Your task to perform on an android device: Open Google Chrome Image 0: 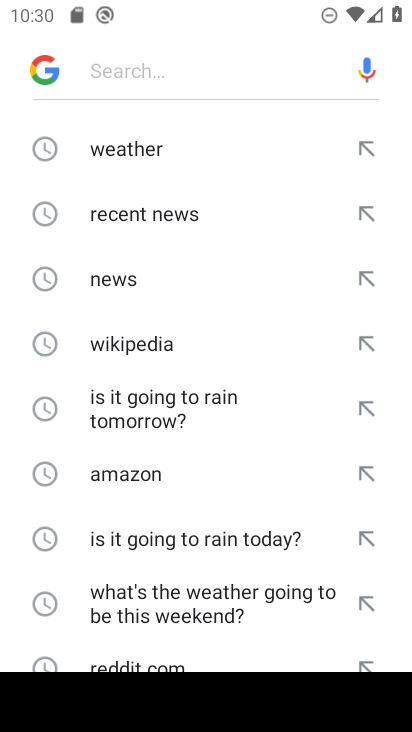
Step 0: press home button
Your task to perform on an android device: Open Google Chrome Image 1: 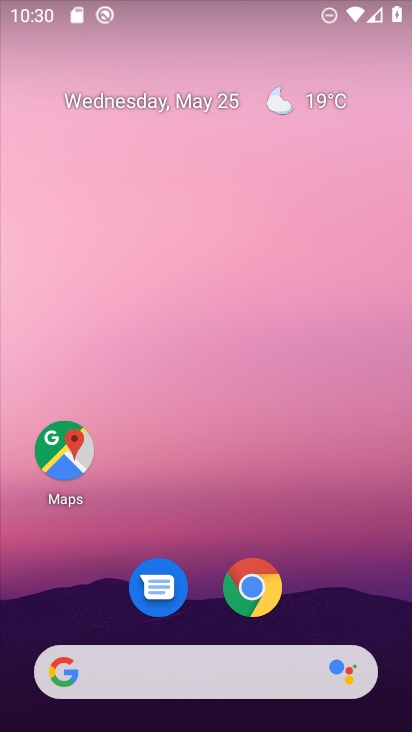
Step 1: click (255, 584)
Your task to perform on an android device: Open Google Chrome Image 2: 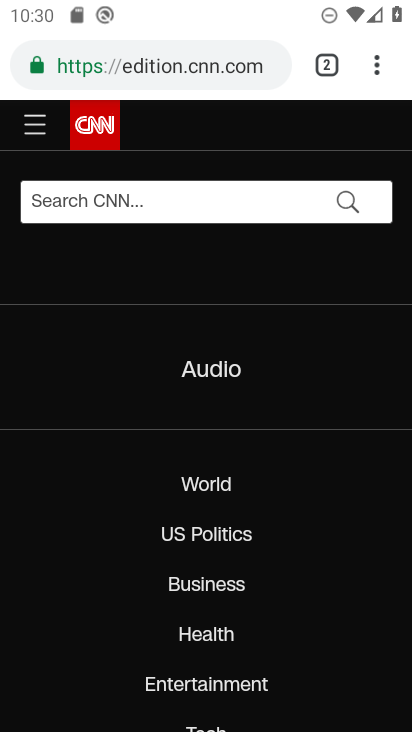
Step 2: task complete